Your task to perform on an android device: change your default location settings in chrome Image 0: 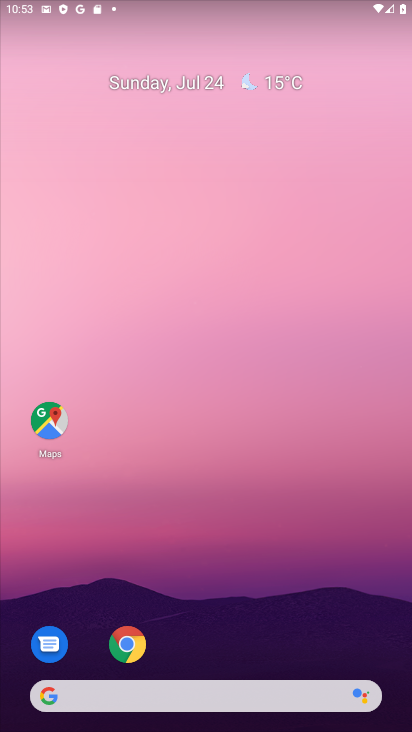
Step 0: drag from (235, 691) to (241, 177)
Your task to perform on an android device: change your default location settings in chrome Image 1: 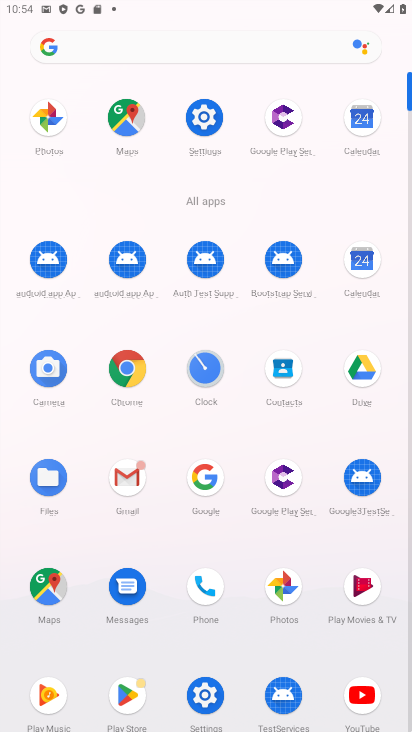
Step 1: click (123, 370)
Your task to perform on an android device: change your default location settings in chrome Image 2: 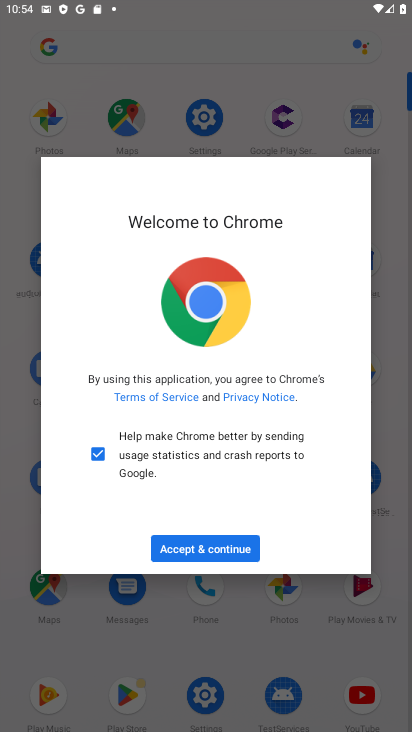
Step 2: click (171, 547)
Your task to perform on an android device: change your default location settings in chrome Image 3: 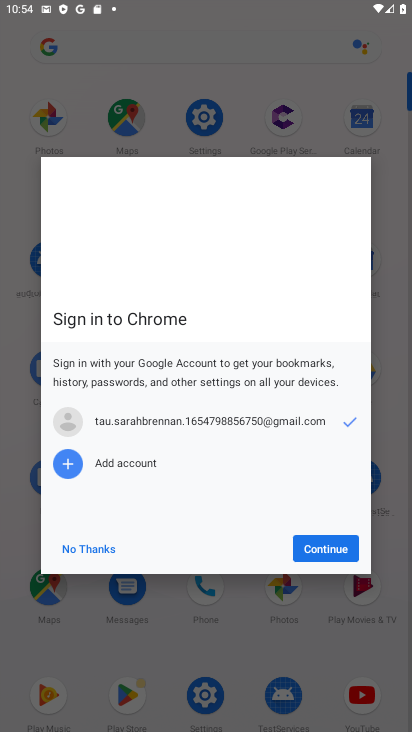
Step 3: click (325, 545)
Your task to perform on an android device: change your default location settings in chrome Image 4: 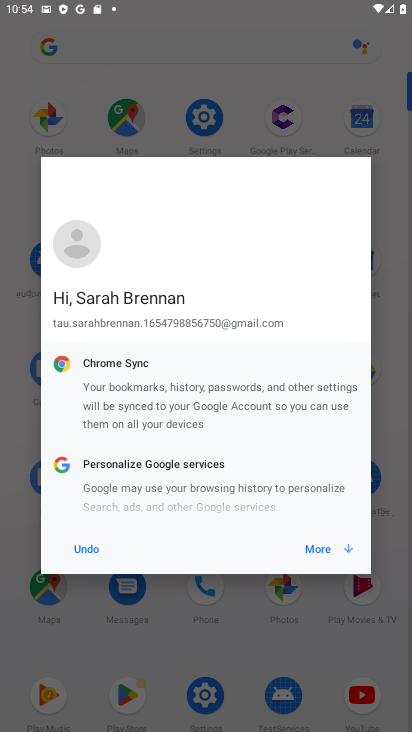
Step 4: click (325, 545)
Your task to perform on an android device: change your default location settings in chrome Image 5: 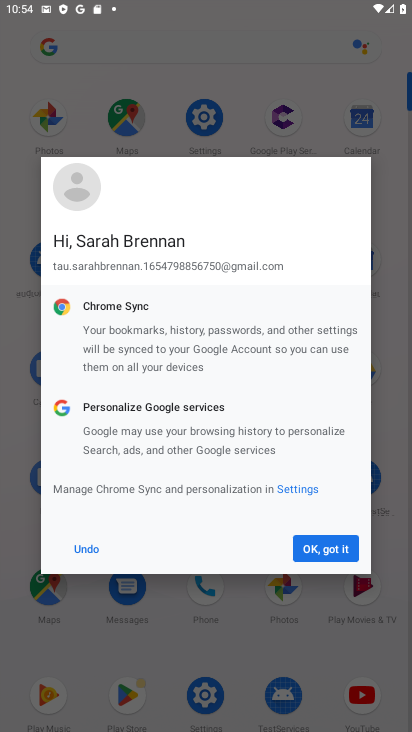
Step 5: click (325, 545)
Your task to perform on an android device: change your default location settings in chrome Image 6: 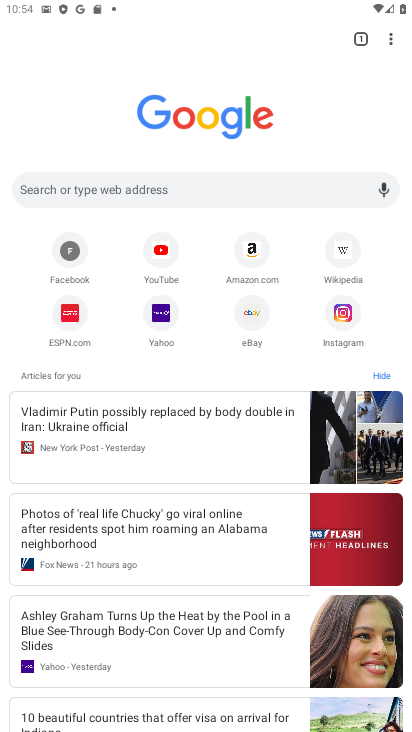
Step 6: click (388, 41)
Your task to perform on an android device: change your default location settings in chrome Image 7: 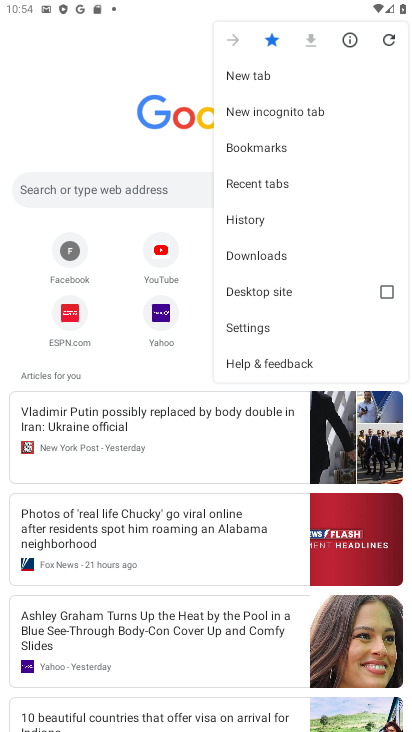
Step 7: click (259, 324)
Your task to perform on an android device: change your default location settings in chrome Image 8: 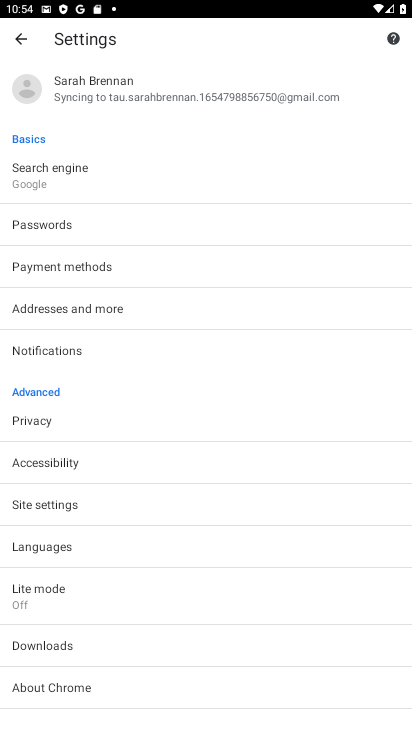
Step 8: click (46, 503)
Your task to perform on an android device: change your default location settings in chrome Image 9: 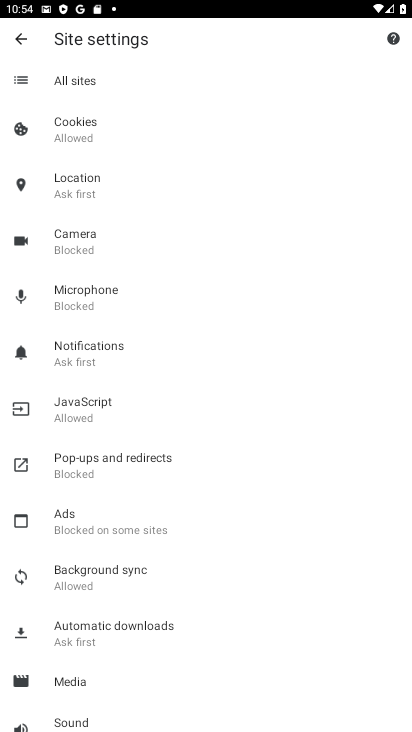
Step 9: click (74, 182)
Your task to perform on an android device: change your default location settings in chrome Image 10: 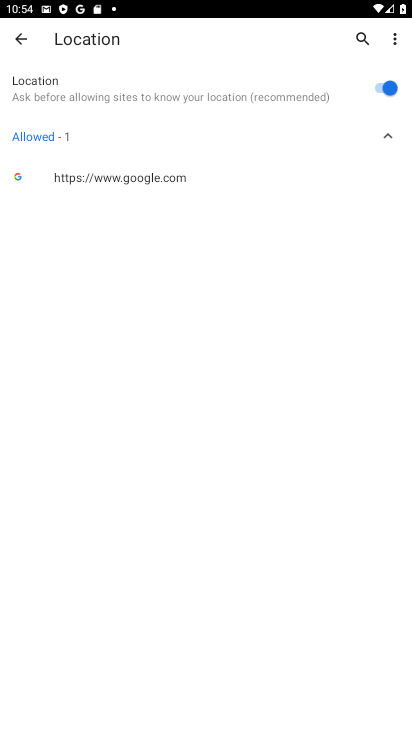
Step 10: click (381, 89)
Your task to perform on an android device: change your default location settings in chrome Image 11: 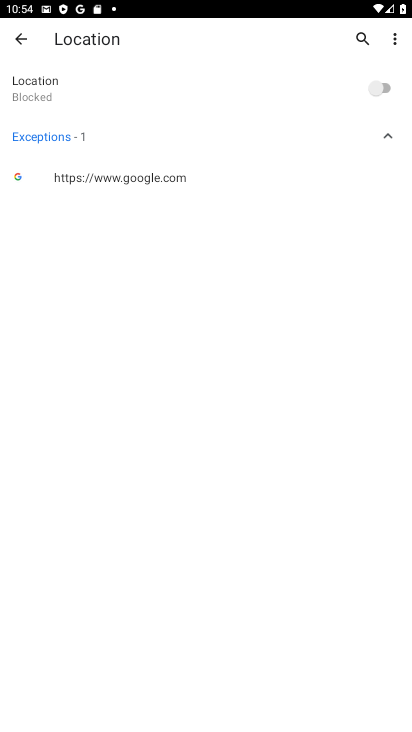
Step 11: task complete